Your task to perform on an android device: Open Youtube and go to the subscriptions tab Image 0: 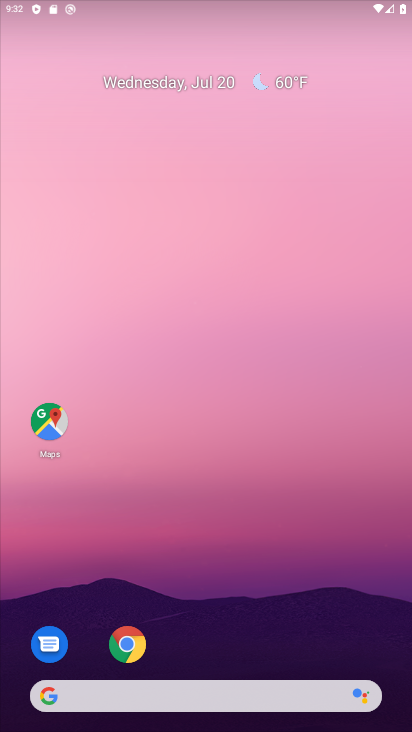
Step 0: drag from (247, 679) to (230, 294)
Your task to perform on an android device: Open Youtube and go to the subscriptions tab Image 1: 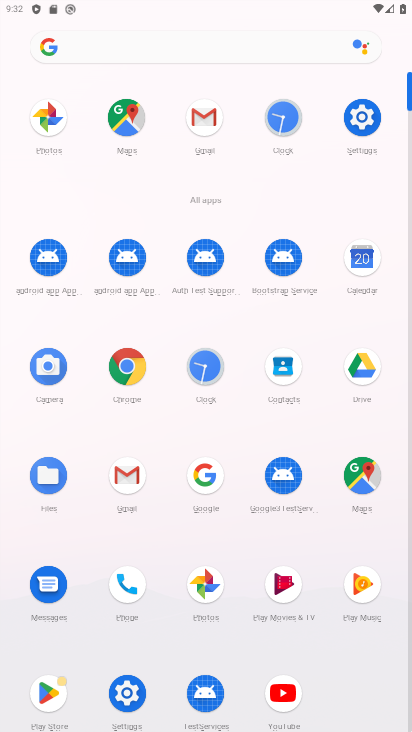
Step 1: click (286, 699)
Your task to perform on an android device: Open Youtube and go to the subscriptions tab Image 2: 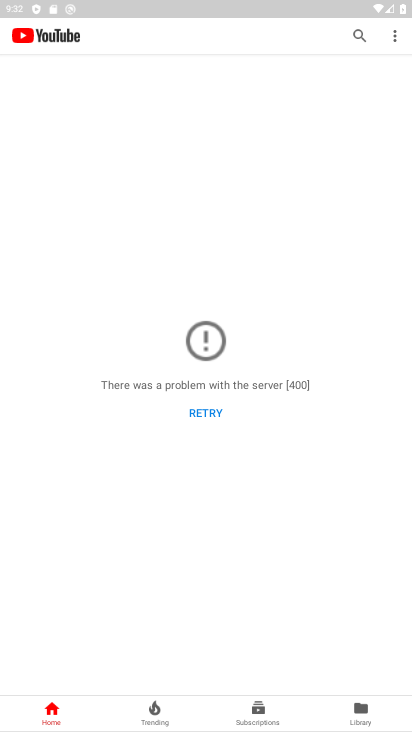
Step 2: click (259, 713)
Your task to perform on an android device: Open Youtube and go to the subscriptions tab Image 3: 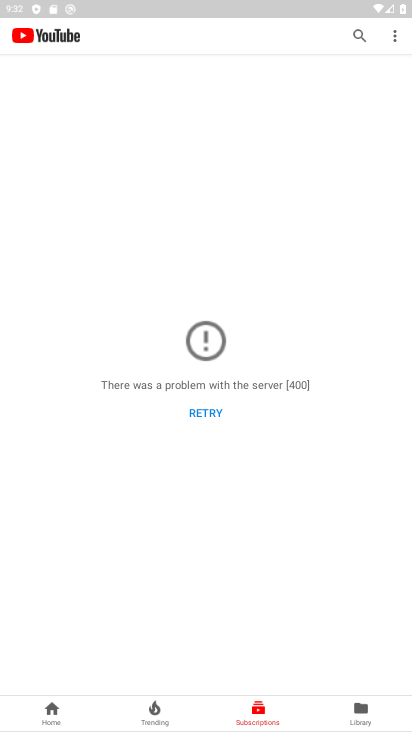
Step 3: task complete